Your task to perform on an android device: install app "The Home Depot" Image 0: 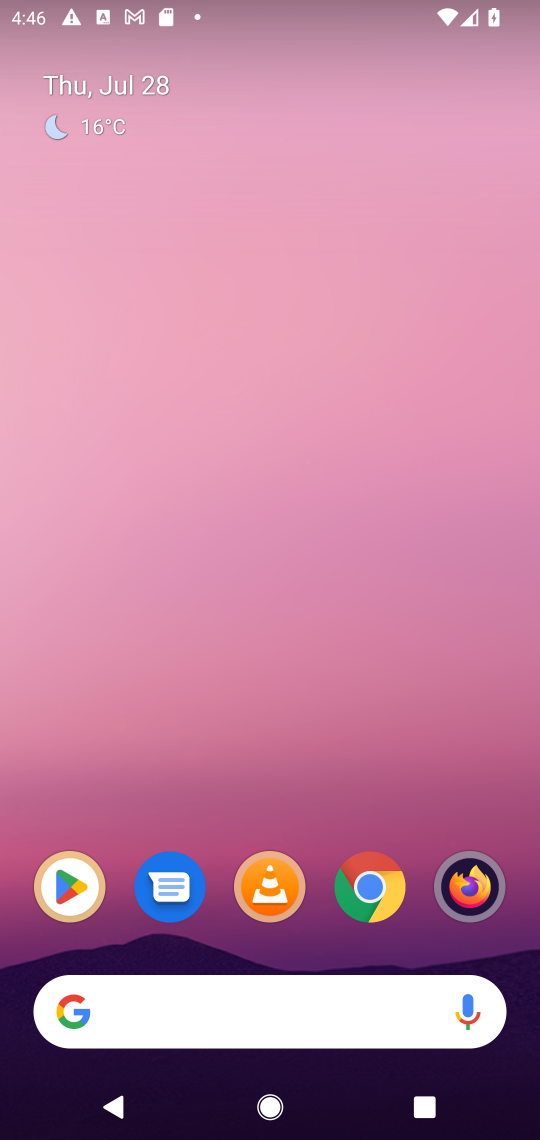
Step 0: click (61, 904)
Your task to perform on an android device: install app "The Home Depot" Image 1: 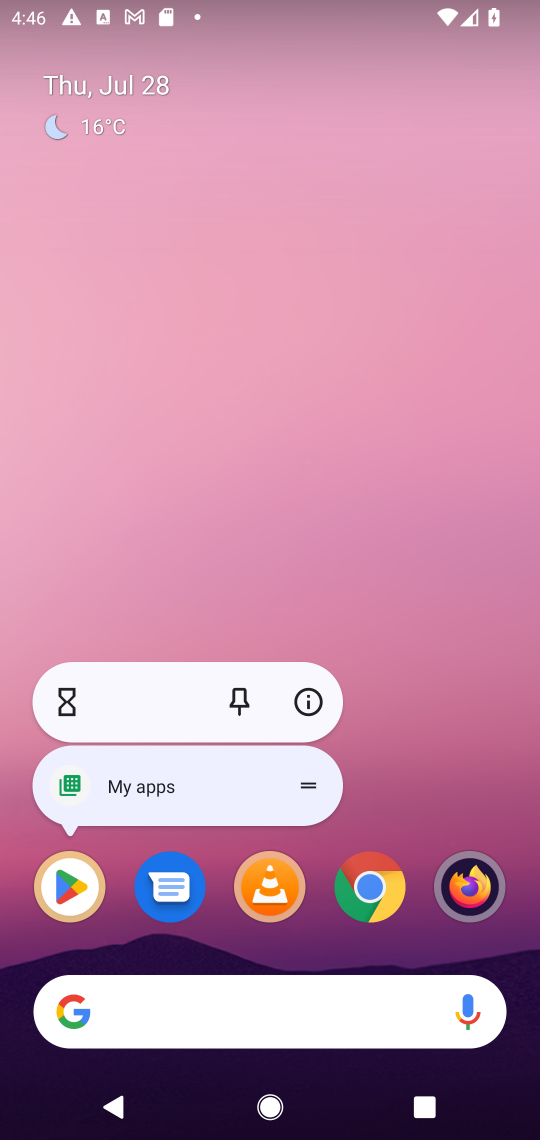
Step 1: click (65, 899)
Your task to perform on an android device: install app "The Home Depot" Image 2: 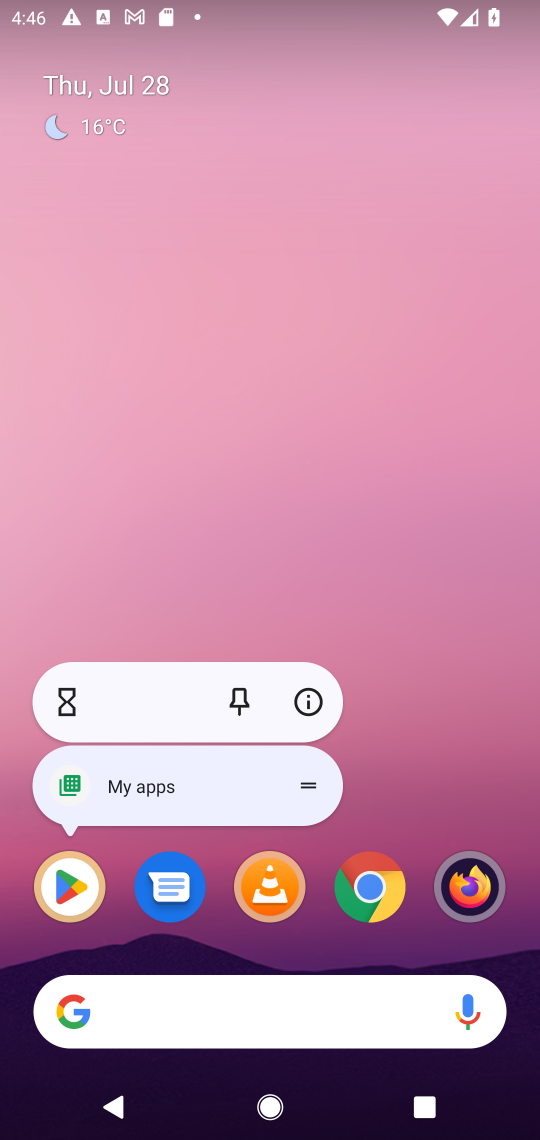
Step 2: click (67, 898)
Your task to perform on an android device: install app "The Home Depot" Image 3: 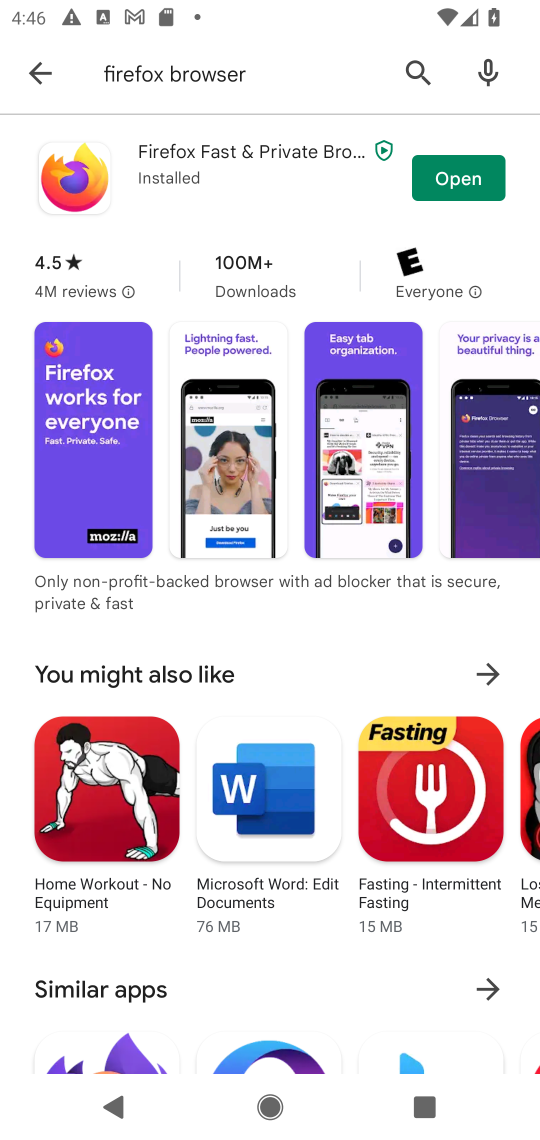
Step 3: click (218, 85)
Your task to perform on an android device: install app "The Home Depot" Image 4: 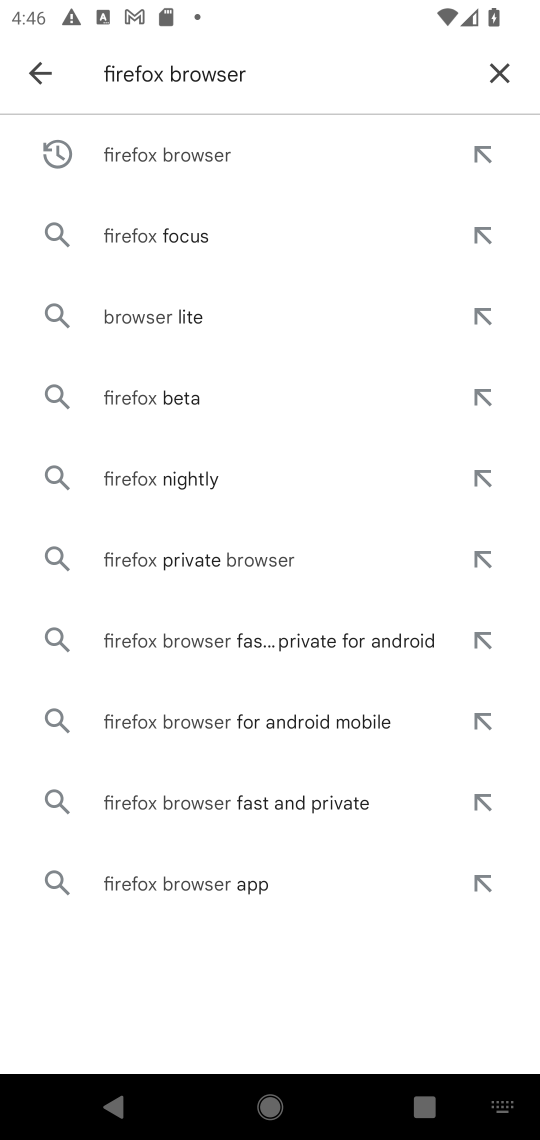
Step 4: click (494, 72)
Your task to perform on an android device: install app "The Home Depot" Image 5: 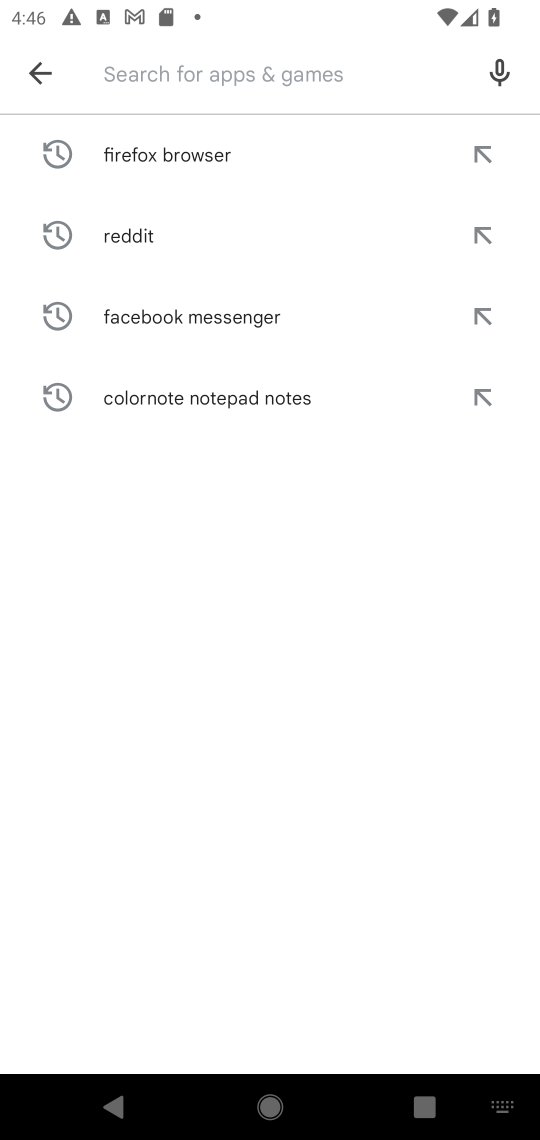
Step 5: type "The Home Depot"
Your task to perform on an android device: install app "The Home Depot" Image 6: 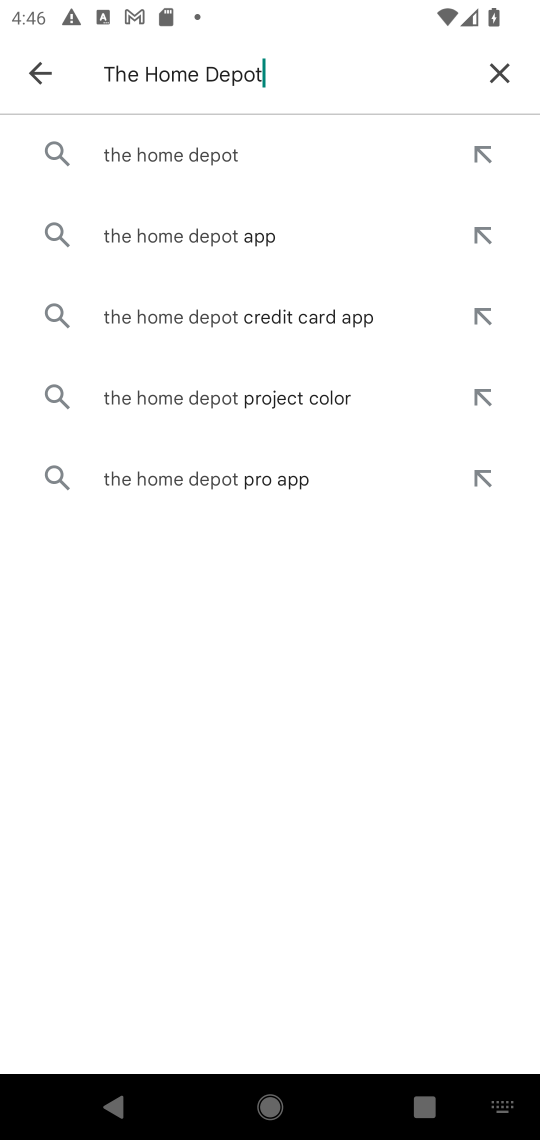
Step 6: click (164, 171)
Your task to perform on an android device: install app "The Home Depot" Image 7: 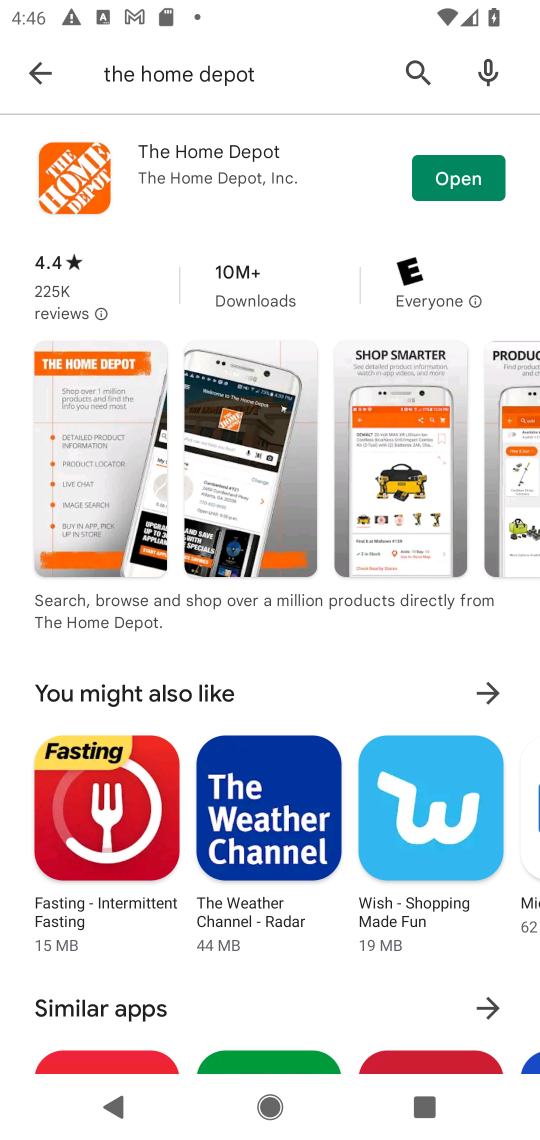
Step 7: task complete